Your task to perform on an android device: What's the latest video from GameXplain? Image 0: 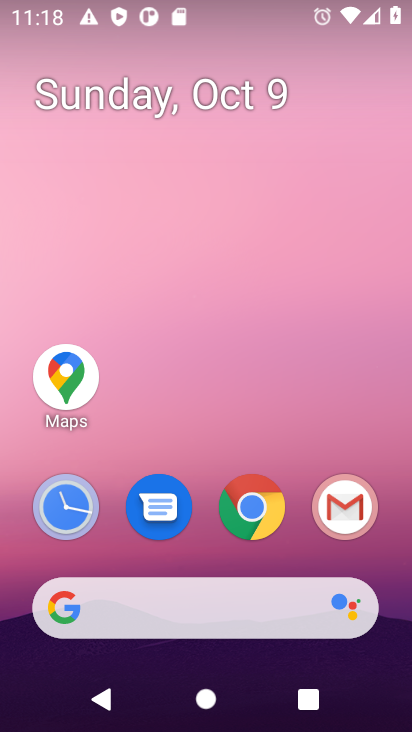
Step 0: click (208, 595)
Your task to perform on an android device: What's the latest video from GameXplain? Image 1: 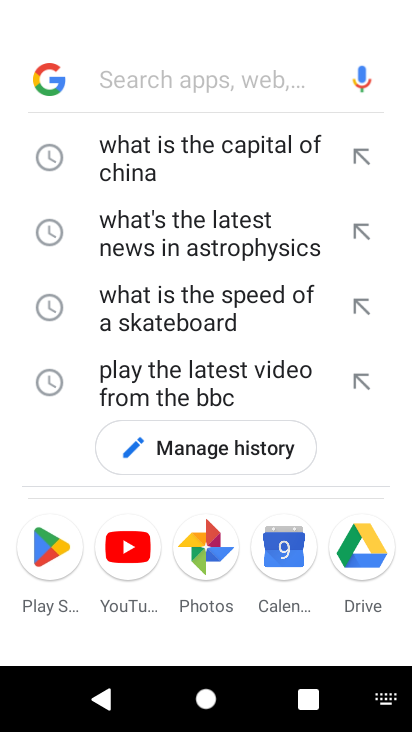
Step 1: type "What's the latest video from GameXplain"
Your task to perform on an android device: What's the latest video from GameXplain? Image 2: 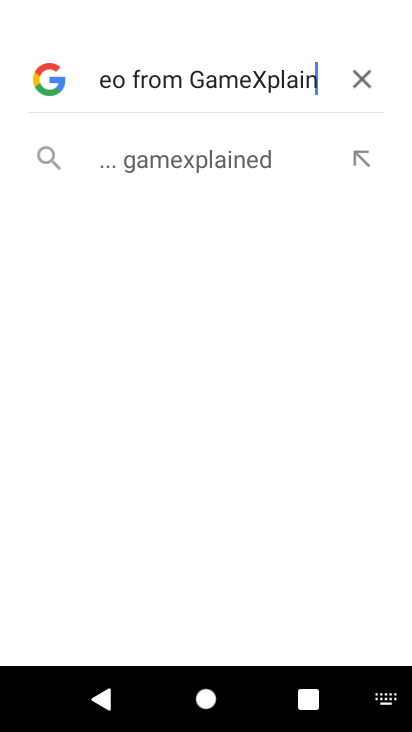
Step 2: press enter
Your task to perform on an android device: What's the latest video from GameXplain? Image 3: 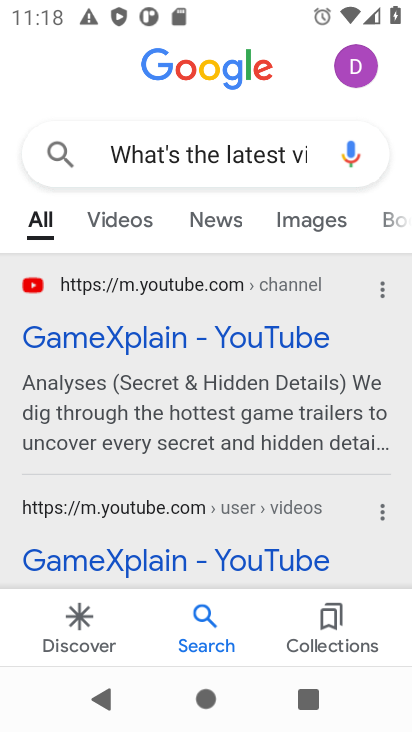
Step 3: click (138, 344)
Your task to perform on an android device: What's the latest video from GameXplain? Image 4: 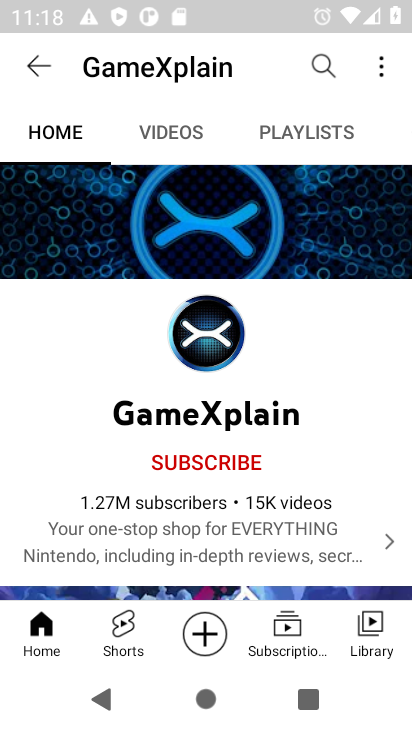
Step 4: task complete